Your task to perform on an android device: toggle show notifications on the lock screen Image 0: 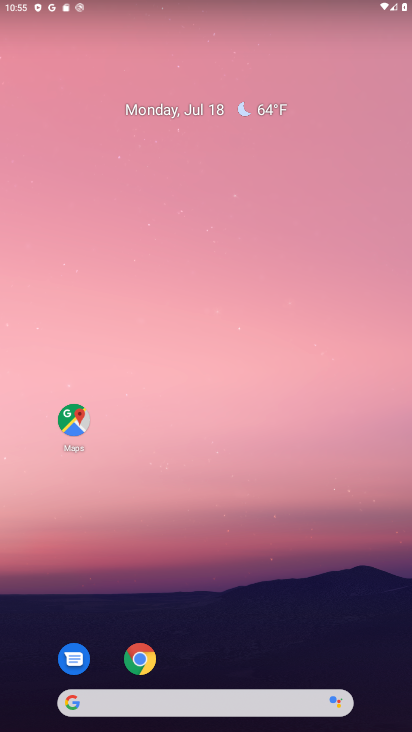
Step 0: press home button
Your task to perform on an android device: toggle show notifications on the lock screen Image 1: 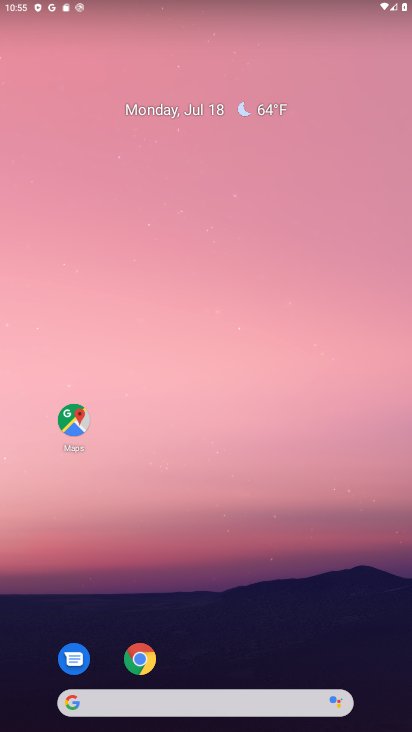
Step 1: drag from (328, 658) to (328, 47)
Your task to perform on an android device: toggle show notifications on the lock screen Image 2: 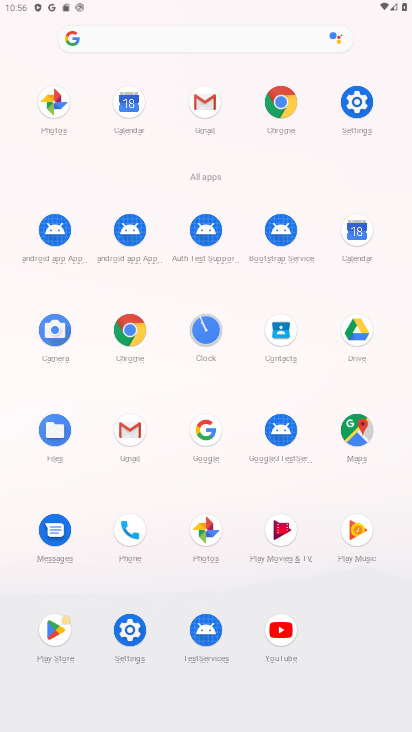
Step 2: click (104, 635)
Your task to perform on an android device: toggle show notifications on the lock screen Image 3: 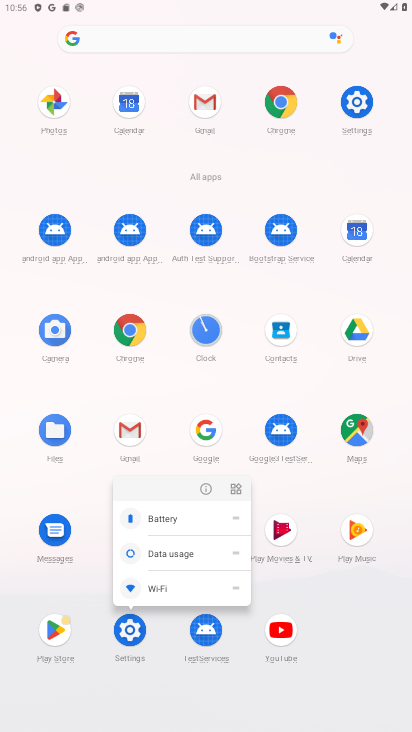
Step 3: click (104, 635)
Your task to perform on an android device: toggle show notifications on the lock screen Image 4: 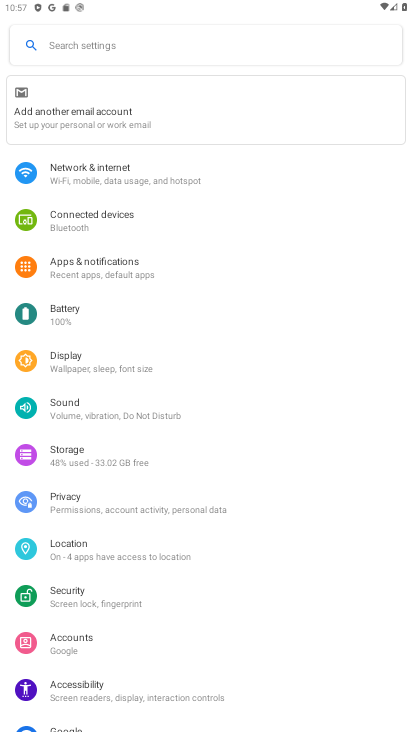
Step 4: click (203, 271)
Your task to perform on an android device: toggle show notifications on the lock screen Image 5: 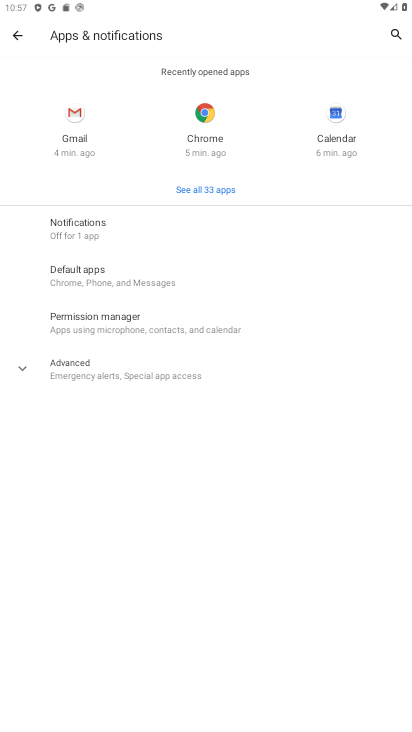
Step 5: click (94, 378)
Your task to perform on an android device: toggle show notifications on the lock screen Image 6: 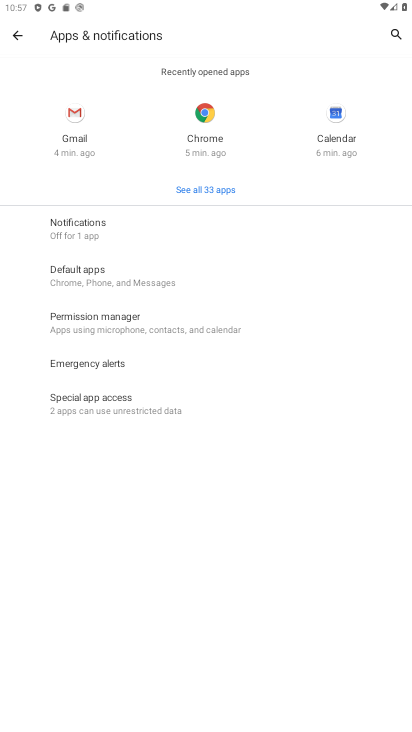
Step 6: click (150, 247)
Your task to perform on an android device: toggle show notifications on the lock screen Image 7: 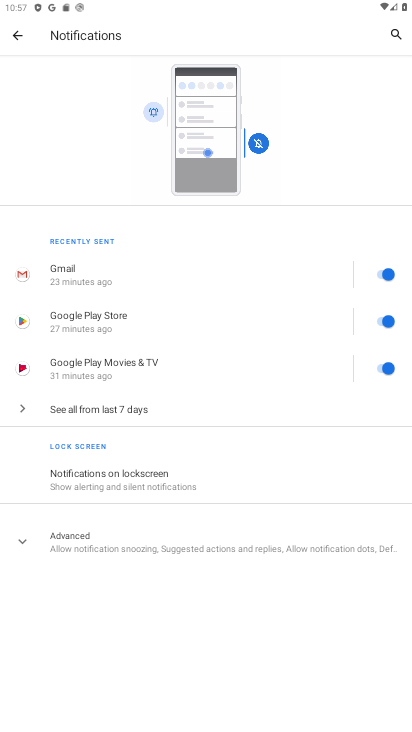
Step 7: click (99, 554)
Your task to perform on an android device: toggle show notifications on the lock screen Image 8: 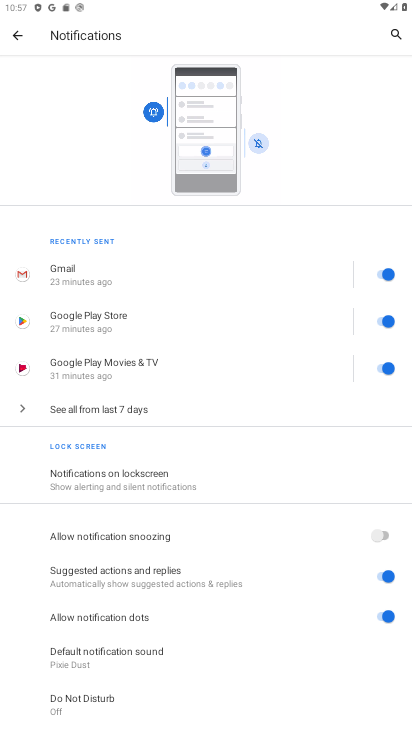
Step 8: drag from (100, 674) to (97, 549)
Your task to perform on an android device: toggle show notifications on the lock screen Image 9: 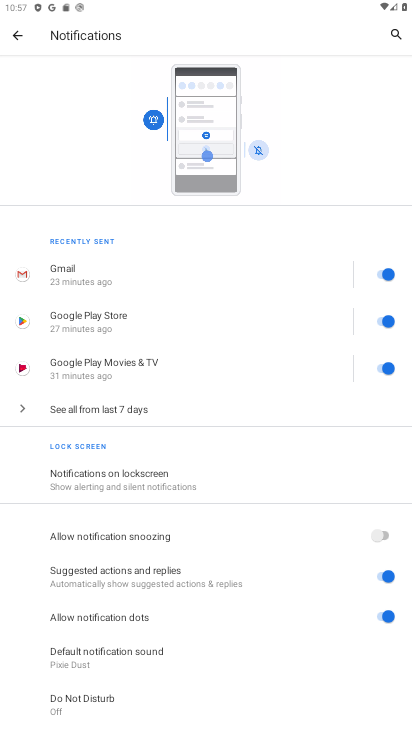
Step 9: click (287, 482)
Your task to perform on an android device: toggle show notifications on the lock screen Image 10: 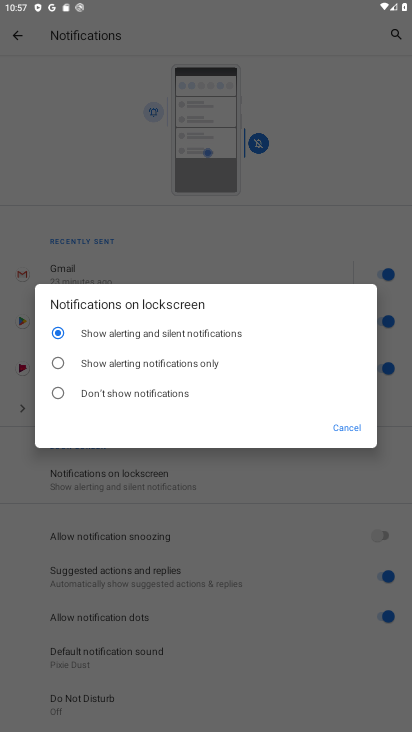
Step 10: click (114, 364)
Your task to perform on an android device: toggle show notifications on the lock screen Image 11: 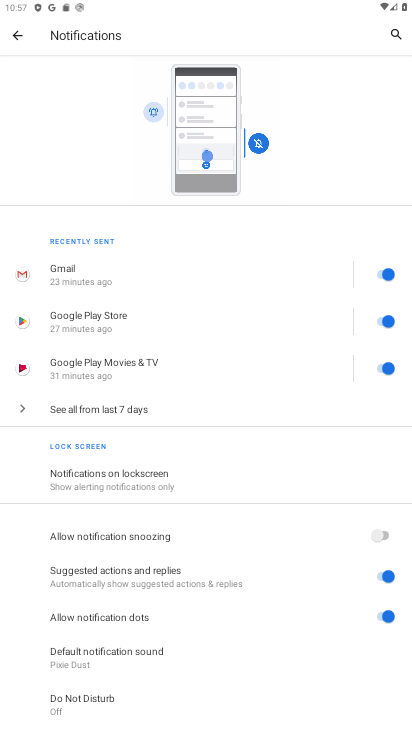
Step 11: task complete